Your task to perform on an android device: Open privacy settings Image 0: 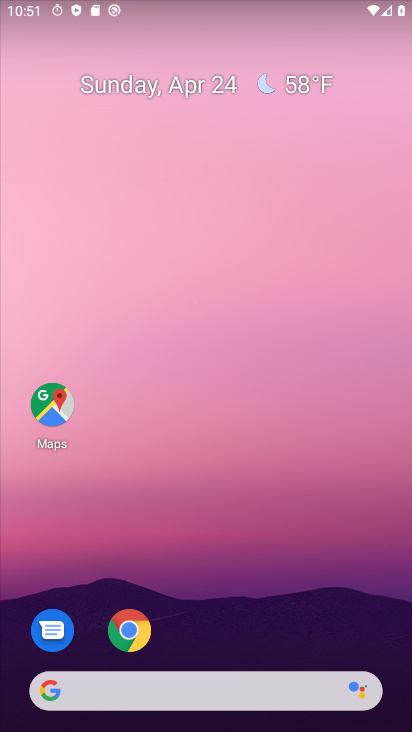
Step 0: drag from (249, 516) to (332, 0)
Your task to perform on an android device: Open privacy settings Image 1: 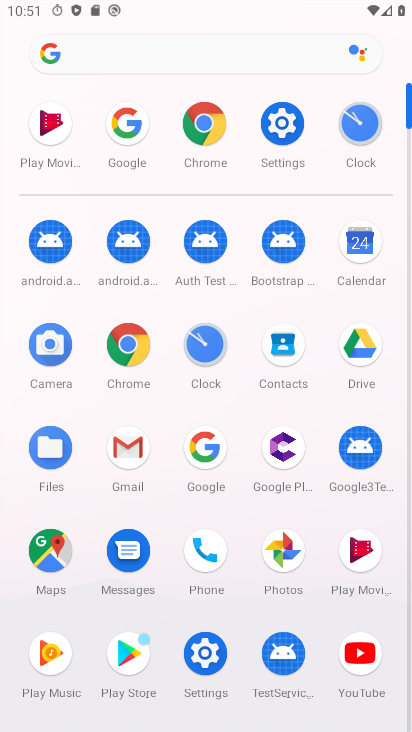
Step 1: click (291, 152)
Your task to perform on an android device: Open privacy settings Image 2: 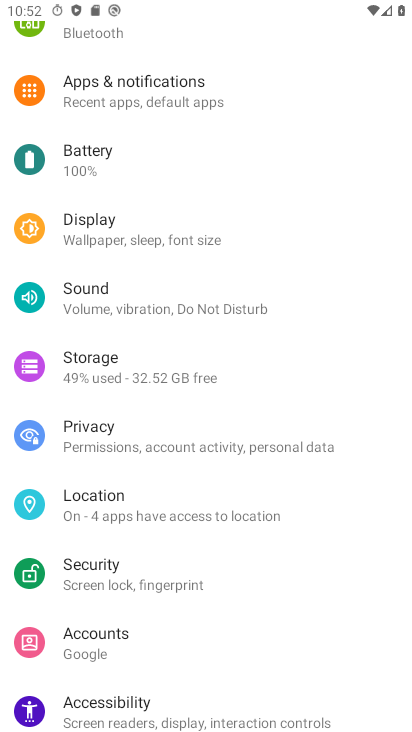
Step 2: click (228, 445)
Your task to perform on an android device: Open privacy settings Image 3: 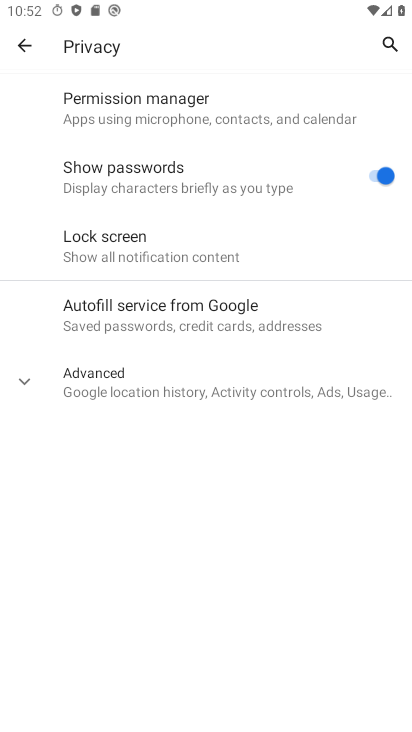
Step 3: task complete